Your task to perform on an android device: Search for pizza restaurants on Maps Image 0: 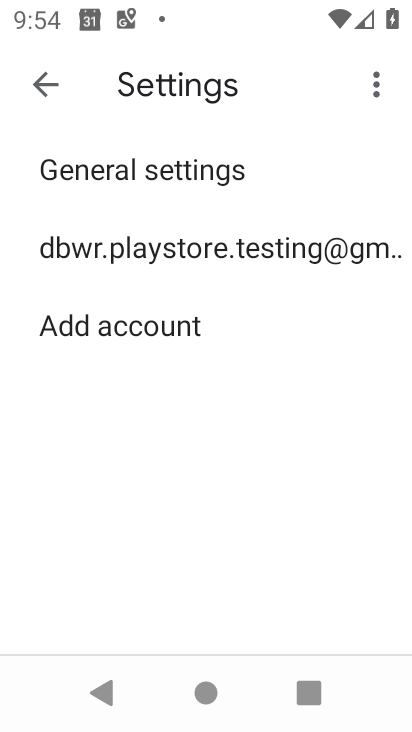
Step 0: press home button
Your task to perform on an android device: Search for pizza restaurants on Maps Image 1: 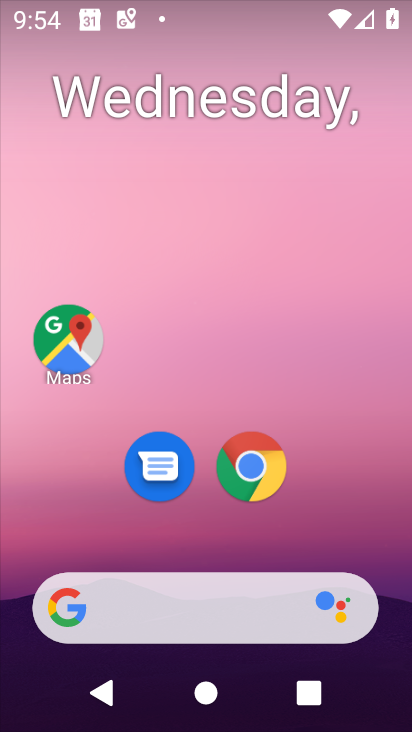
Step 1: click (82, 324)
Your task to perform on an android device: Search for pizza restaurants on Maps Image 2: 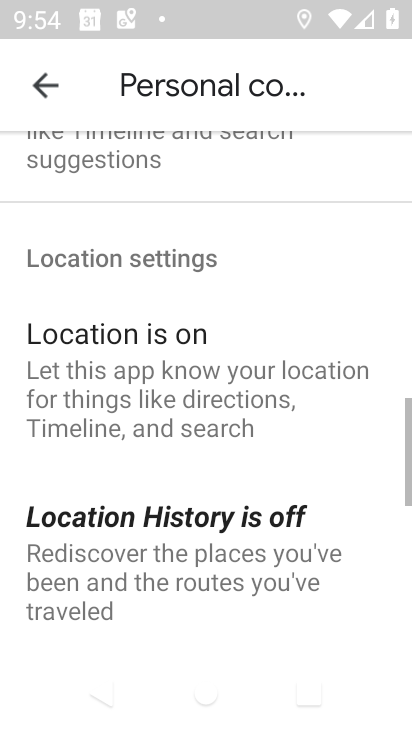
Step 2: click (63, 80)
Your task to perform on an android device: Search for pizza restaurants on Maps Image 3: 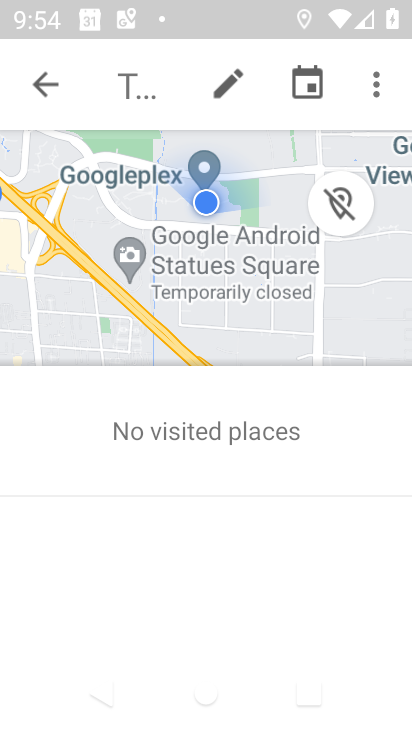
Step 3: click (51, 77)
Your task to perform on an android device: Search for pizza restaurants on Maps Image 4: 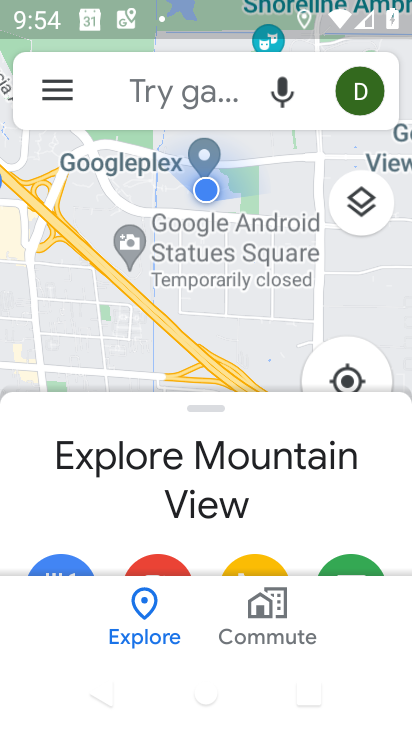
Step 4: click (198, 78)
Your task to perform on an android device: Search for pizza restaurants on Maps Image 5: 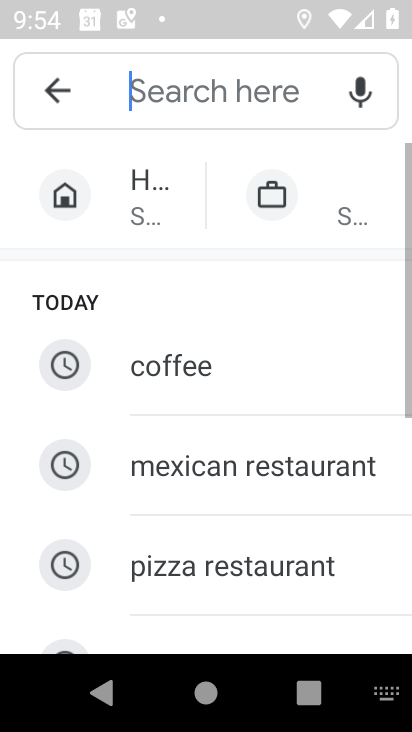
Step 5: click (216, 564)
Your task to perform on an android device: Search for pizza restaurants on Maps Image 6: 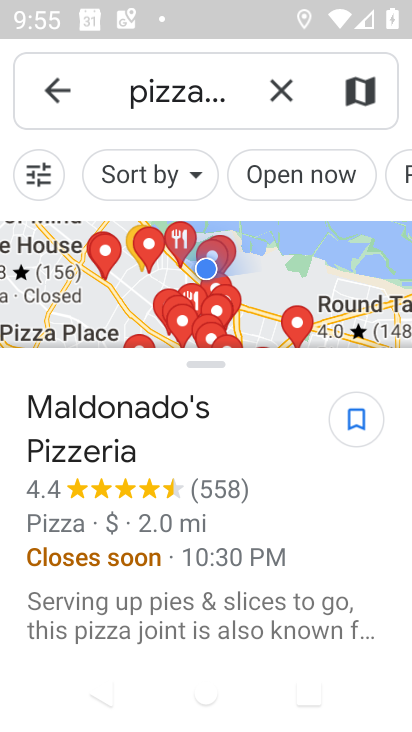
Step 6: task complete